Your task to perform on an android device: toggle notification dots Image 0: 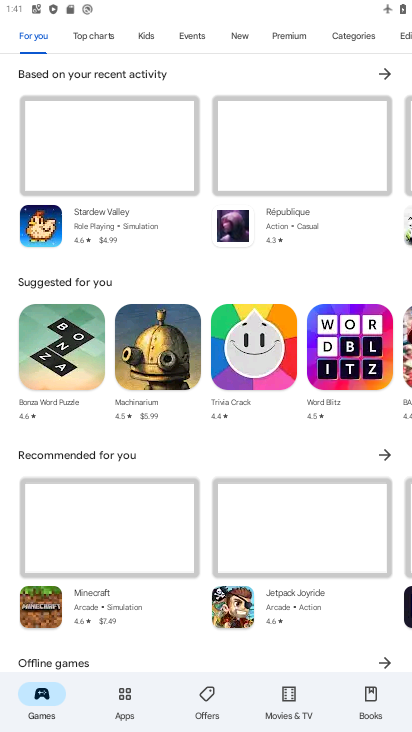
Step 0: press home button
Your task to perform on an android device: toggle notification dots Image 1: 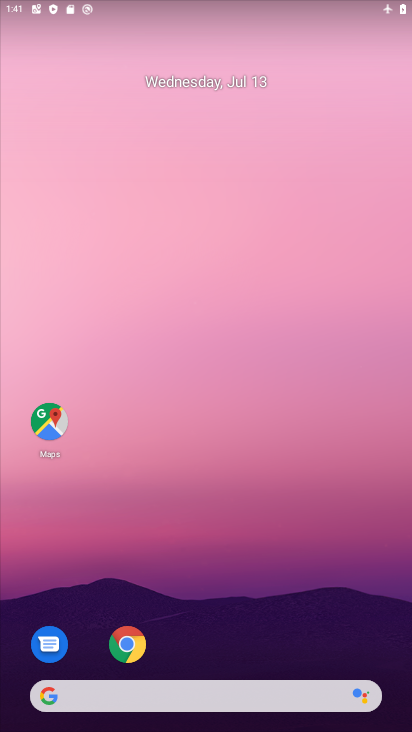
Step 1: drag from (298, 501) to (266, 131)
Your task to perform on an android device: toggle notification dots Image 2: 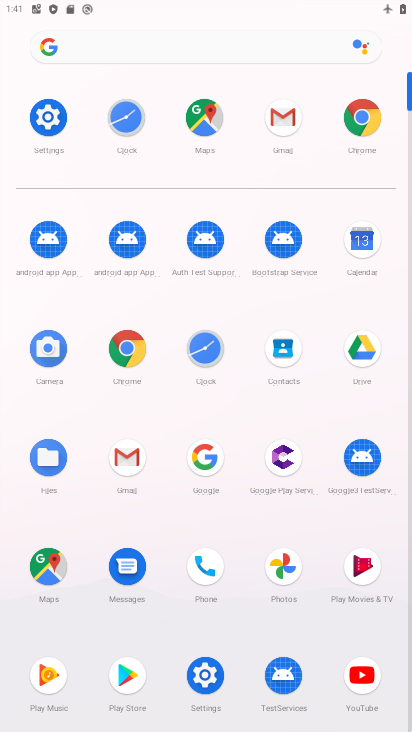
Step 2: click (51, 116)
Your task to perform on an android device: toggle notification dots Image 3: 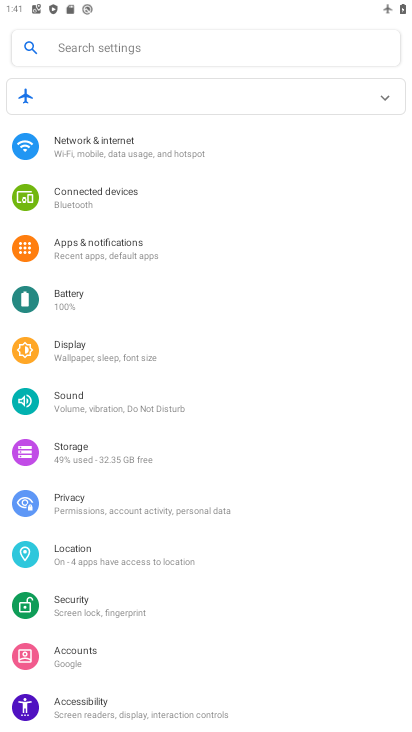
Step 3: click (126, 242)
Your task to perform on an android device: toggle notification dots Image 4: 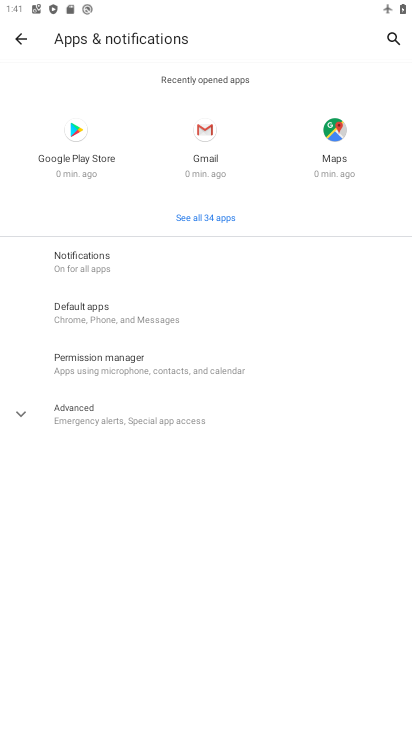
Step 4: click (133, 265)
Your task to perform on an android device: toggle notification dots Image 5: 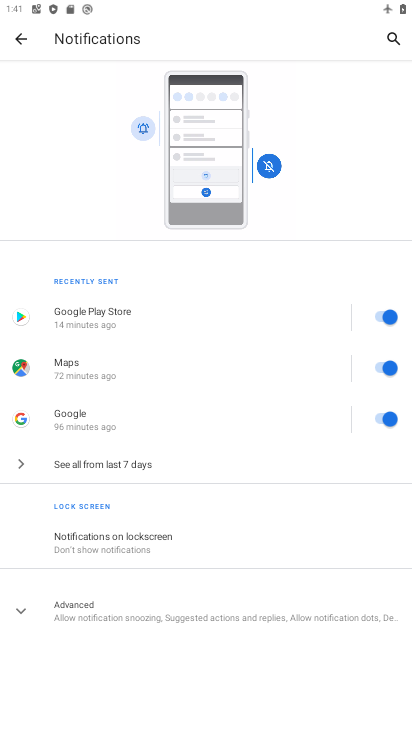
Step 5: click (193, 617)
Your task to perform on an android device: toggle notification dots Image 6: 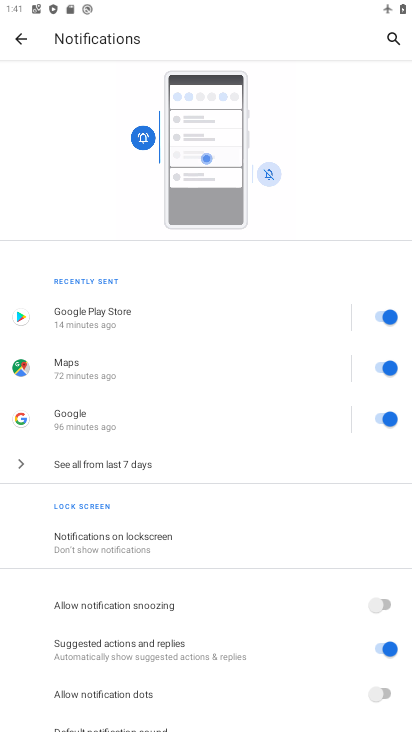
Step 6: click (378, 690)
Your task to perform on an android device: toggle notification dots Image 7: 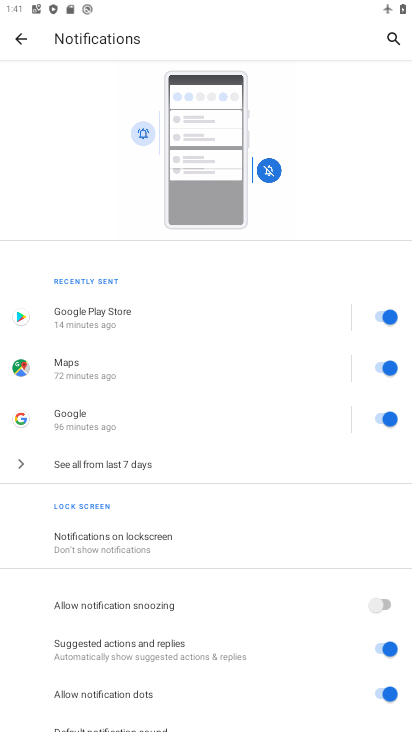
Step 7: task complete